Your task to perform on an android device: turn off priority inbox in the gmail app Image 0: 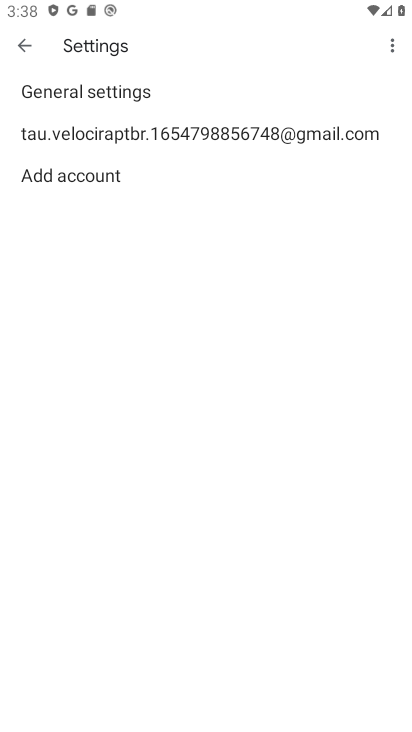
Step 0: click (101, 140)
Your task to perform on an android device: turn off priority inbox in the gmail app Image 1: 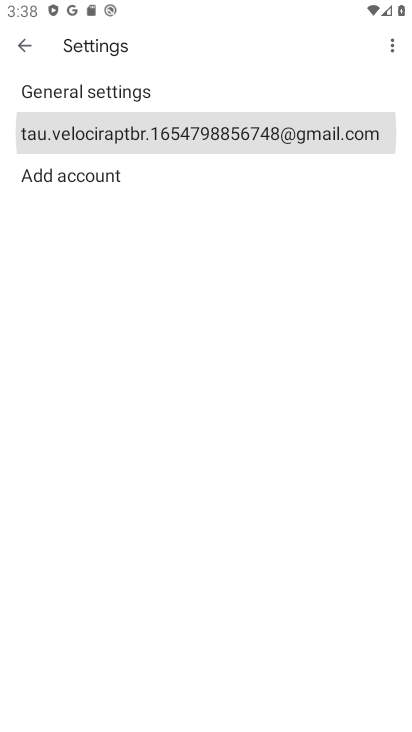
Step 1: click (106, 134)
Your task to perform on an android device: turn off priority inbox in the gmail app Image 2: 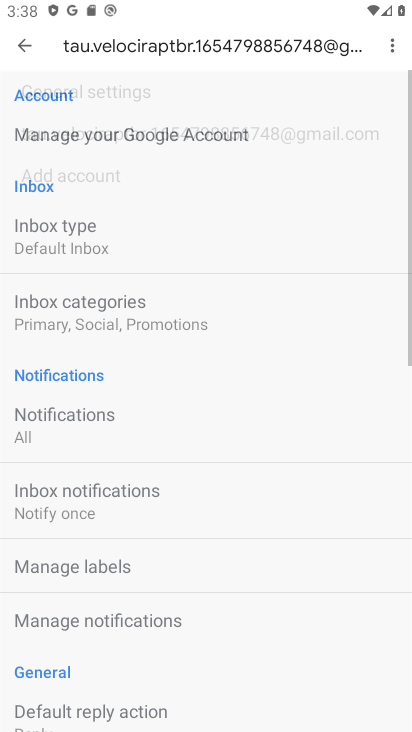
Step 2: click (108, 133)
Your task to perform on an android device: turn off priority inbox in the gmail app Image 3: 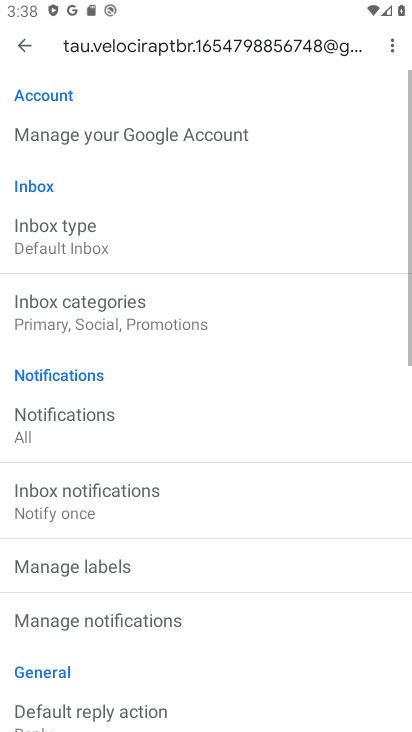
Step 3: click (108, 133)
Your task to perform on an android device: turn off priority inbox in the gmail app Image 4: 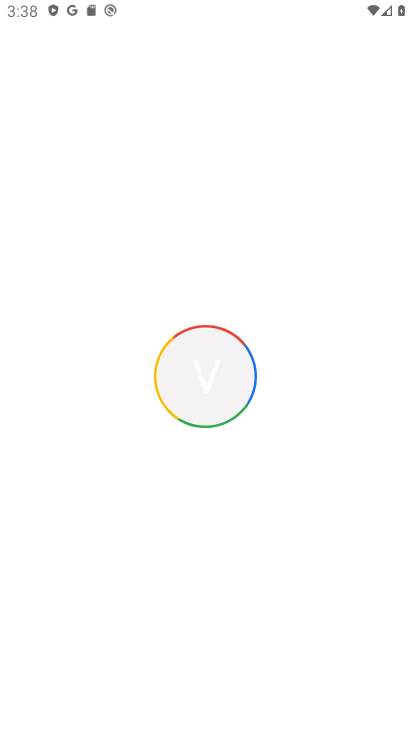
Step 4: press back button
Your task to perform on an android device: turn off priority inbox in the gmail app Image 5: 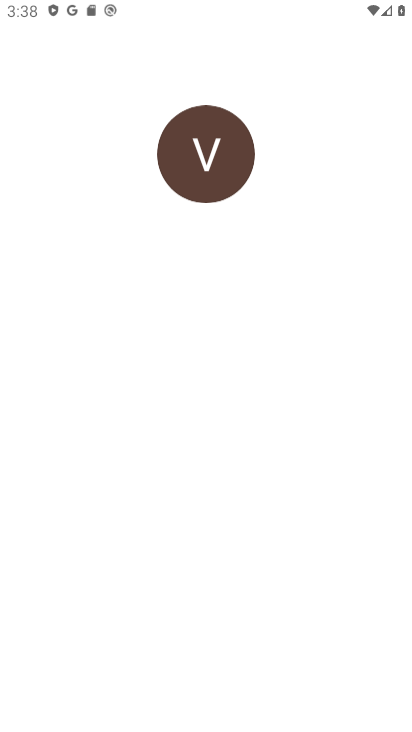
Step 5: press back button
Your task to perform on an android device: turn off priority inbox in the gmail app Image 6: 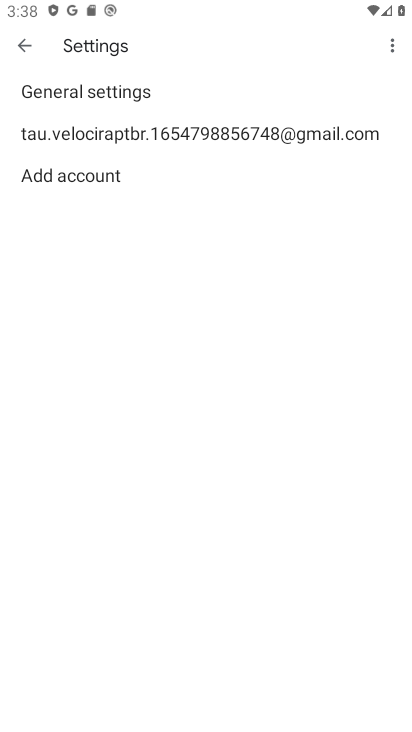
Step 6: click (111, 136)
Your task to perform on an android device: turn off priority inbox in the gmail app Image 7: 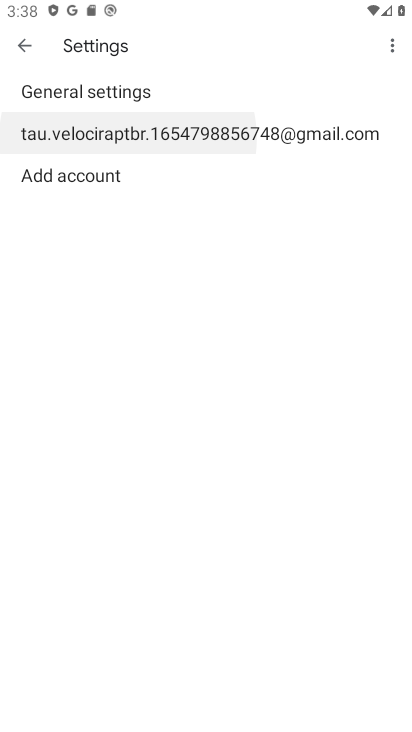
Step 7: click (116, 129)
Your task to perform on an android device: turn off priority inbox in the gmail app Image 8: 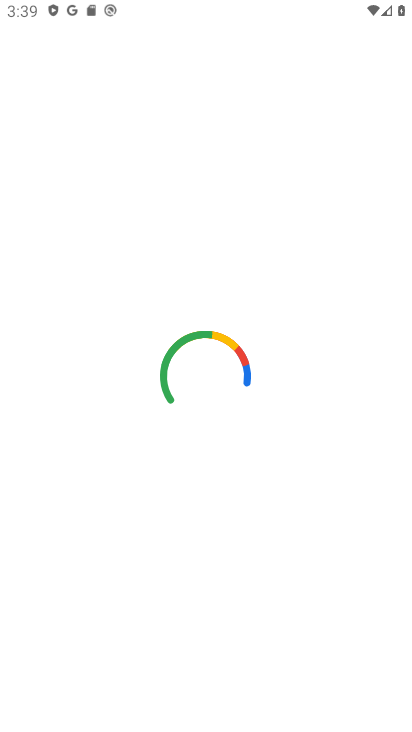
Step 8: press back button
Your task to perform on an android device: turn off priority inbox in the gmail app Image 9: 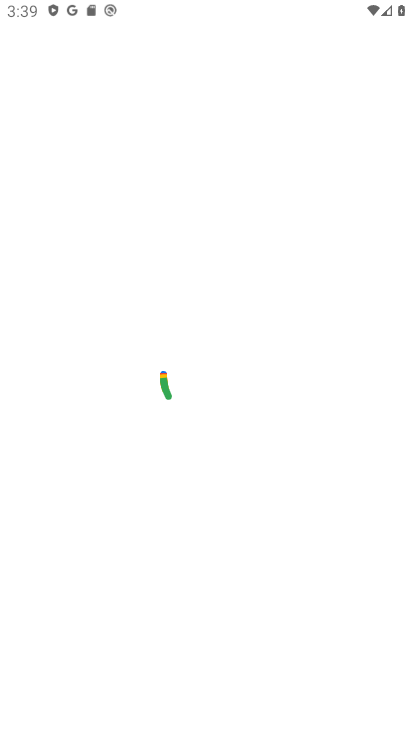
Step 9: press back button
Your task to perform on an android device: turn off priority inbox in the gmail app Image 10: 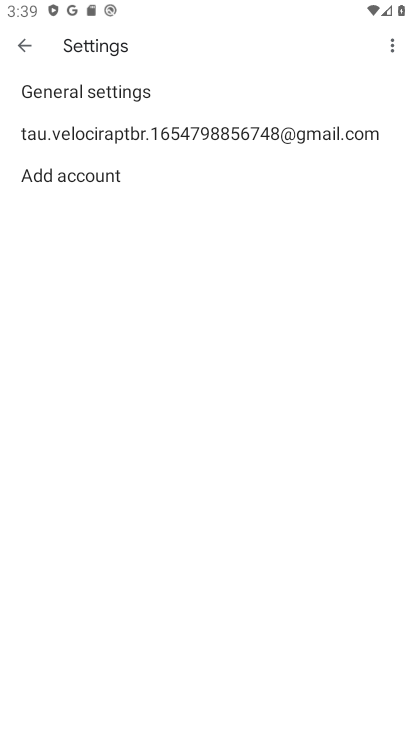
Step 10: click (41, 131)
Your task to perform on an android device: turn off priority inbox in the gmail app Image 11: 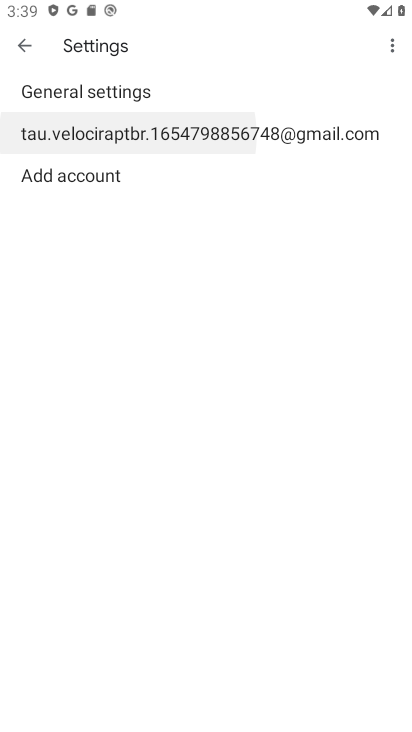
Step 11: click (130, 133)
Your task to perform on an android device: turn off priority inbox in the gmail app Image 12: 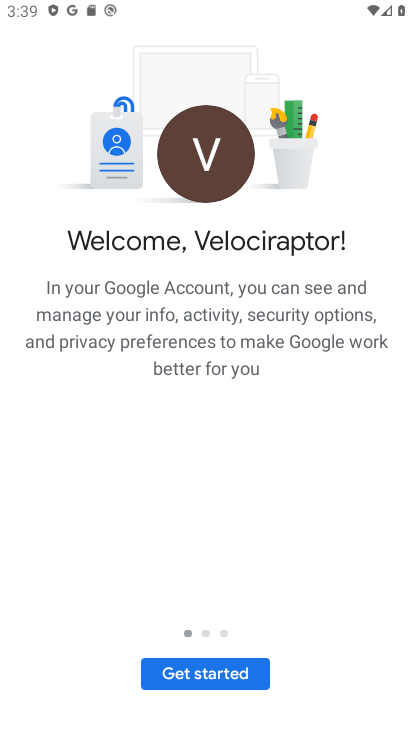
Step 12: task complete